Your task to perform on an android device: change the clock display to show seconds Image 0: 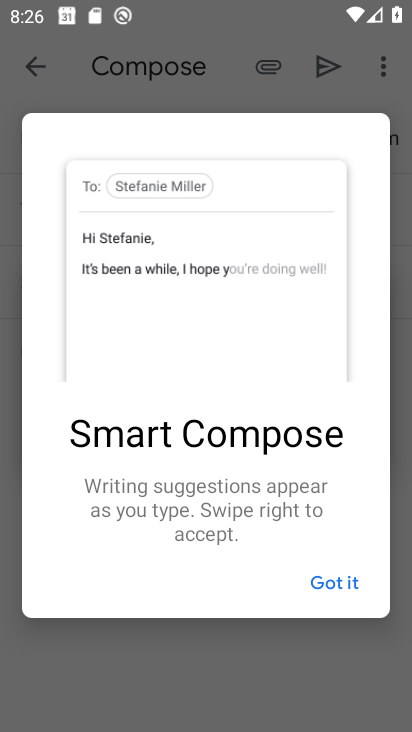
Step 0: press home button
Your task to perform on an android device: change the clock display to show seconds Image 1: 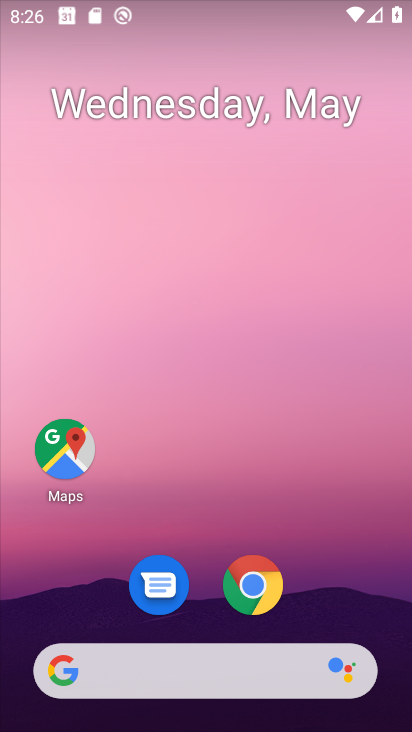
Step 1: drag from (277, 464) to (270, 73)
Your task to perform on an android device: change the clock display to show seconds Image 2: 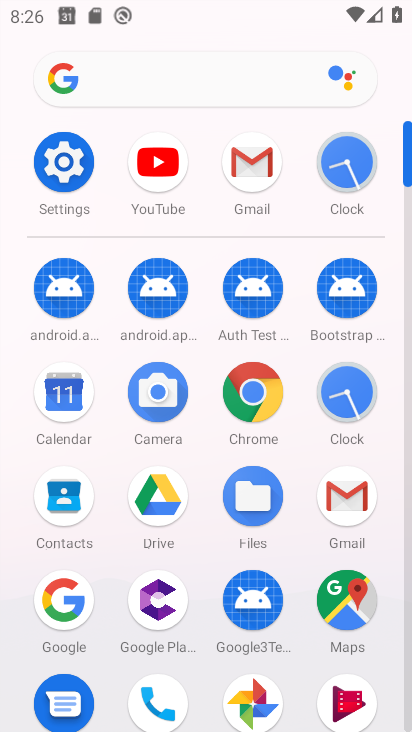
Step 2: click (341, 166)
Your task to perform on an android device: change the clock display to show seconds Image 3: 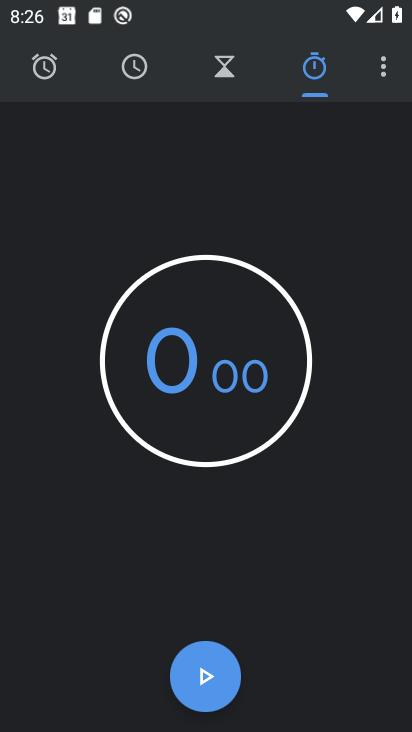
Step 3: click (378, 68)
Your task to perform on an android device: change the clock display to show seconds Image 4: 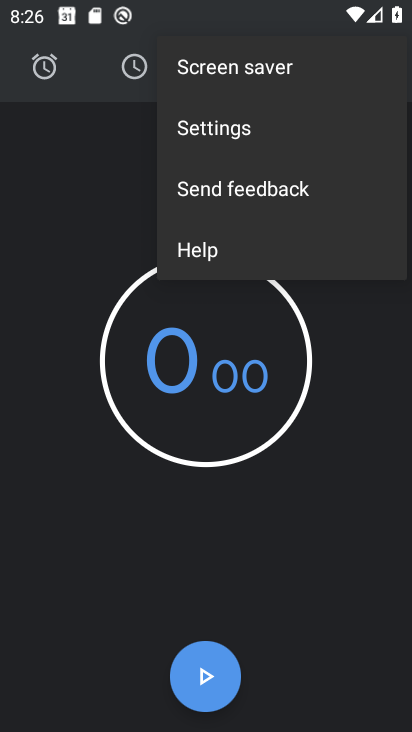
Step 4: click (296, 136)
Your task to perform on an android device: change the clock display to show seconds Image 5: 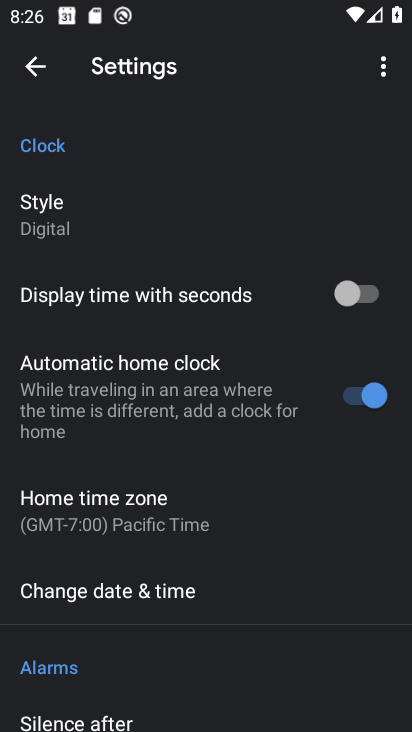
Step 5: click (363, 295)
Your task to perform on an android device: change the clock display to show seconds Image 6: 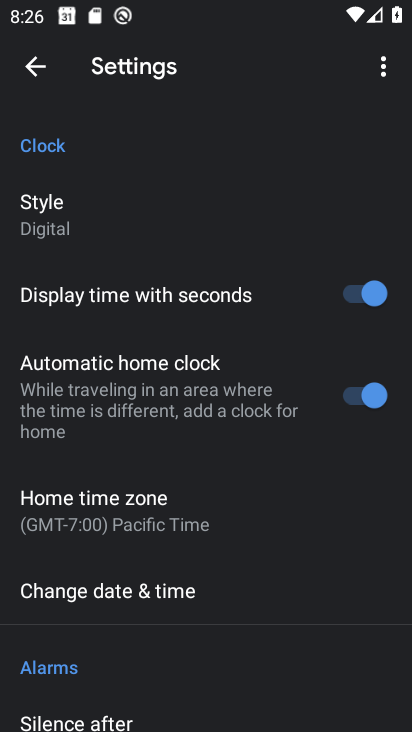
Step 6: task complete